Your task to perform on an android device: turn notification dots off Image 0: 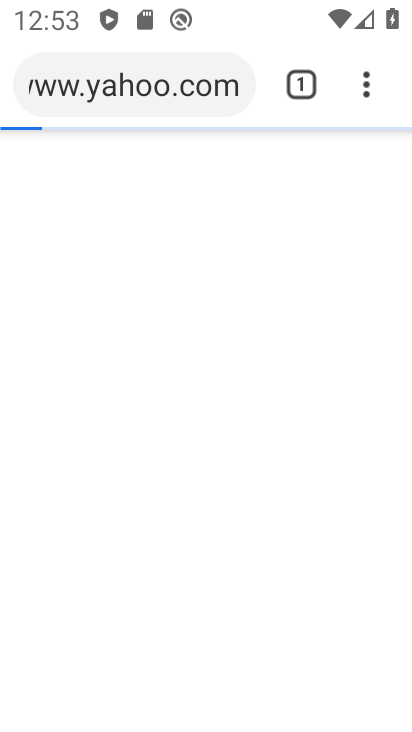
Step 0: press home button
Your task to perform on an android device: turn notification dots off Image 1: 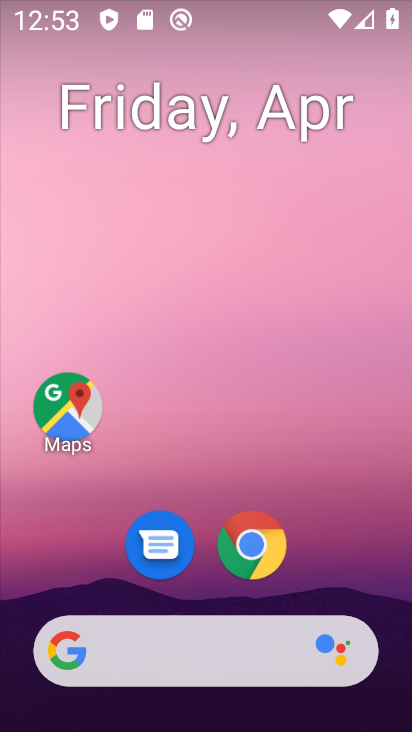
Step 1: drag from (327, 545) to (322, 47)
Your task to perform on an android device: turn notification dots off Image 2: 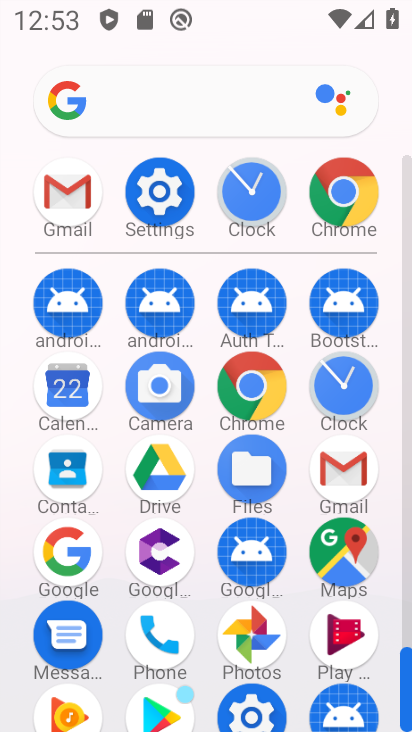
Step 2: click (166, 188)
Your task to perform on an android device: turn notification dots off Image 3: 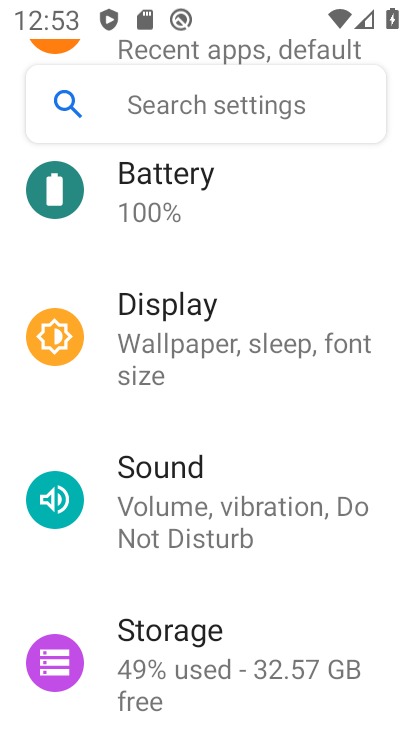
Step 3: drag from (263, 227) to (276, 566)
Your task to perform on an android device: turn notification dots off Image 4: 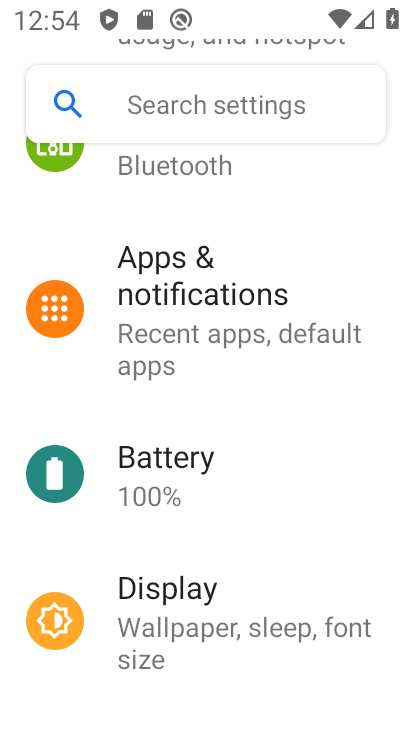
Step 4: click (228, 305)
Your task to perform on an android device: turn notification dots off Image 5: 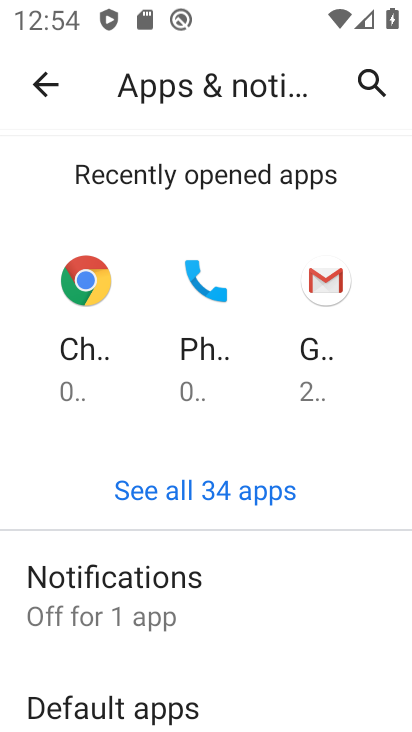
Step 5: drag from (275, 670) to (267, 225)
Your task to perform on an android device: turn notification dots off Image 6: 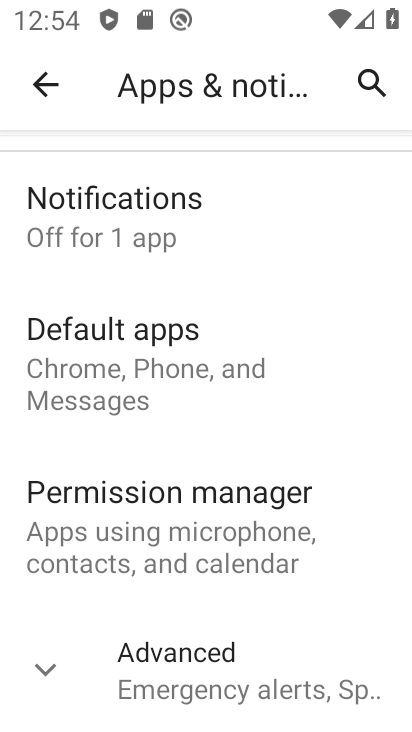
Step 6: click (165, 224)
Your task to perform on an android device: turn notification dots off Image 7: 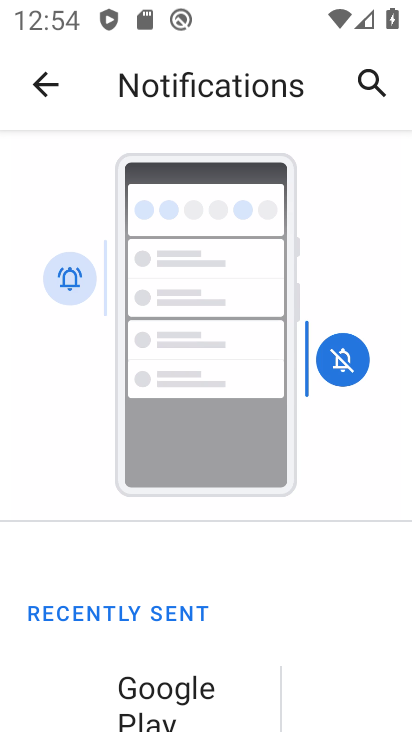
Step 7: drag from (258, 622) to (246, 153)
Your task to perform on an android device: turn notification dots off Image 8: 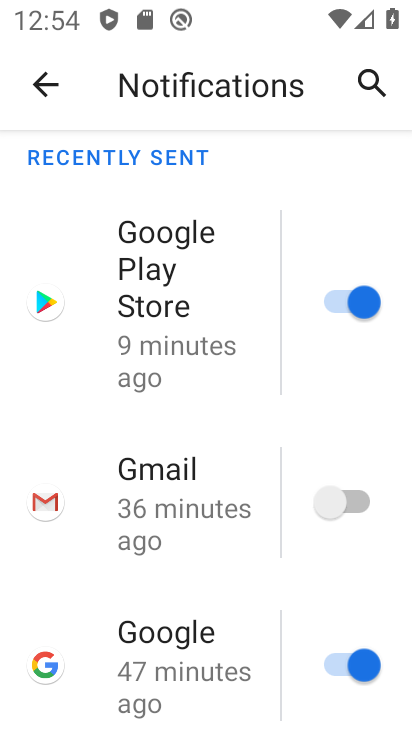
Step 8: drag from (261, 664) to (268, 227)
Your task to perform on an android device: turn notification dots off Image 9: 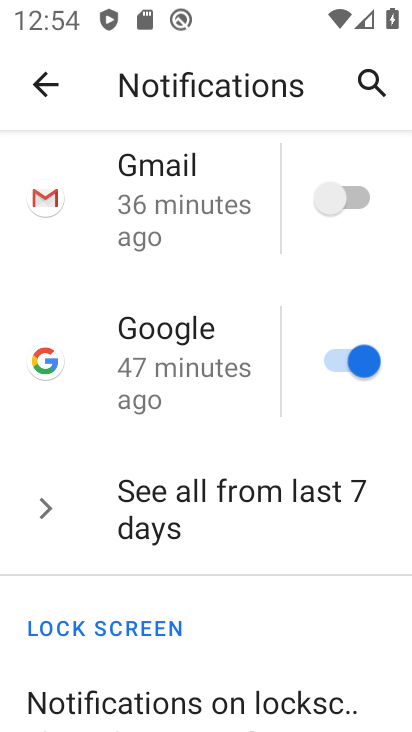
Step 9: drag from (270, 641) to (263, 11)
Your task to perform on an android device: turn notification dots off Image 10: 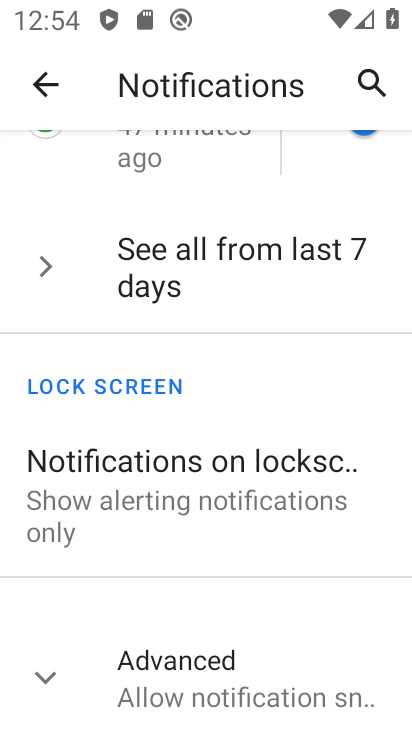
Step 10: click (263, 679)
Your task to perform on an android device: turn notification dots off Image 11: 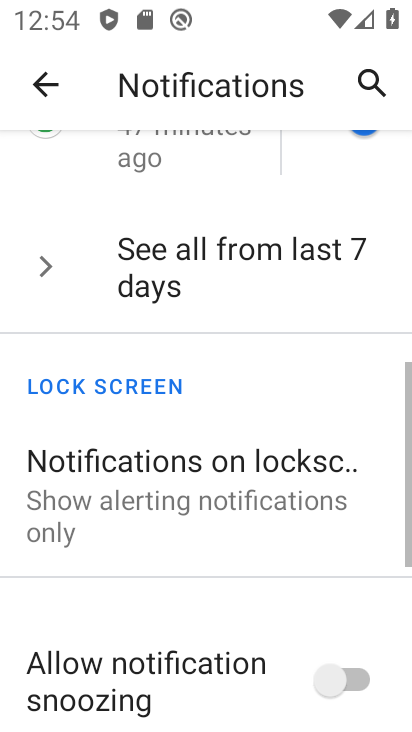
Step 11: drag from (243, 695) to (274, 287)
Your task to perform on an android device: turn notification dots off Image 12: 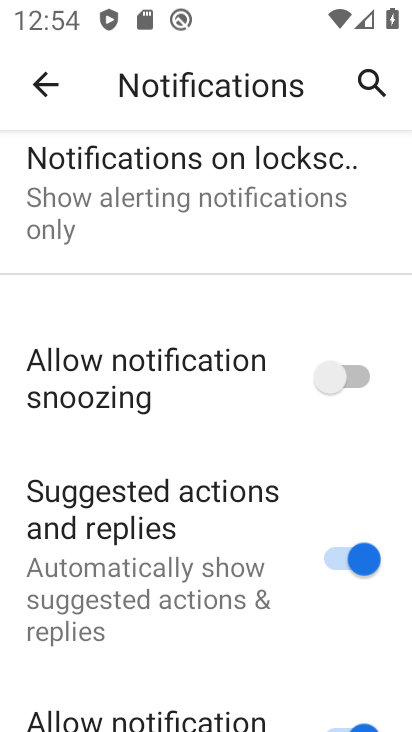
Step 12: drag from (251, 698) to (269, 429)
Your task to perform on an android device: turn notification dots off Image 13: 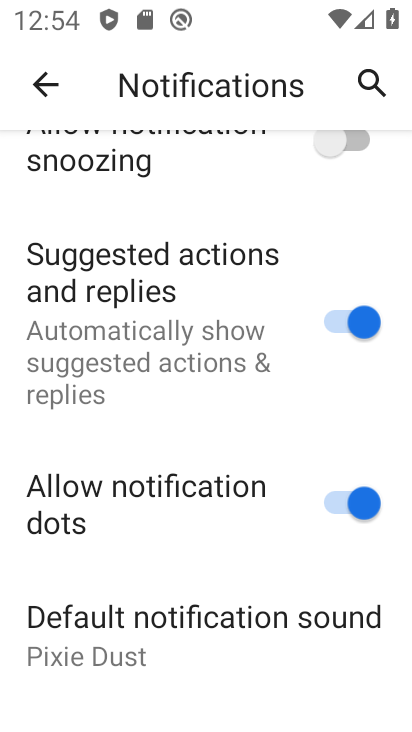
Step 13: click (341, 501)
Your task to perform on an android device: turn notification dots off Image 14: 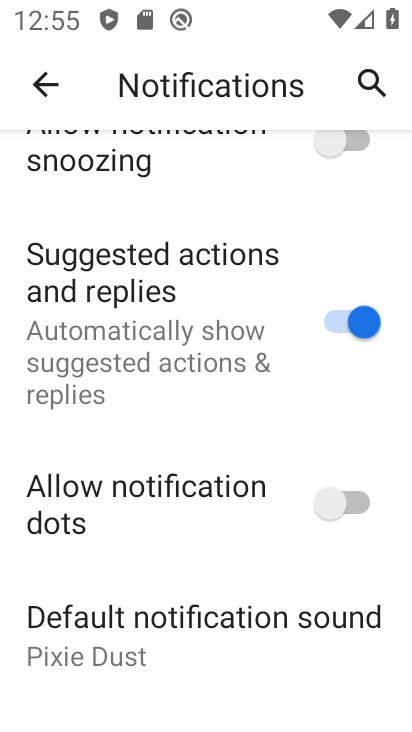
Step 14: task complete